Your task to perform on an android device: check out phone information Image 0: 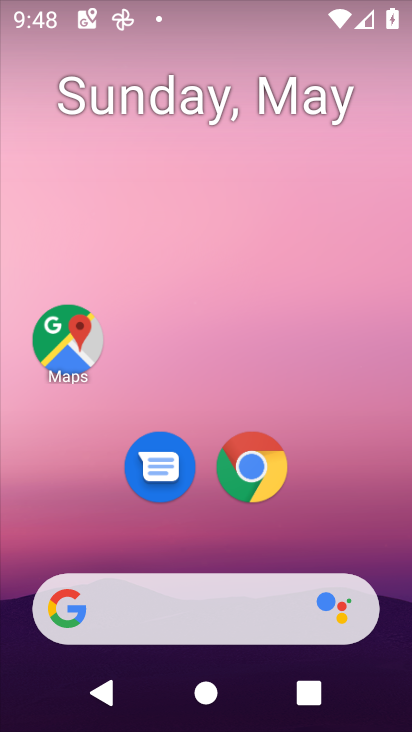
Step 0: press home button
Your task to perform on an android device: check out phone information Image 1: 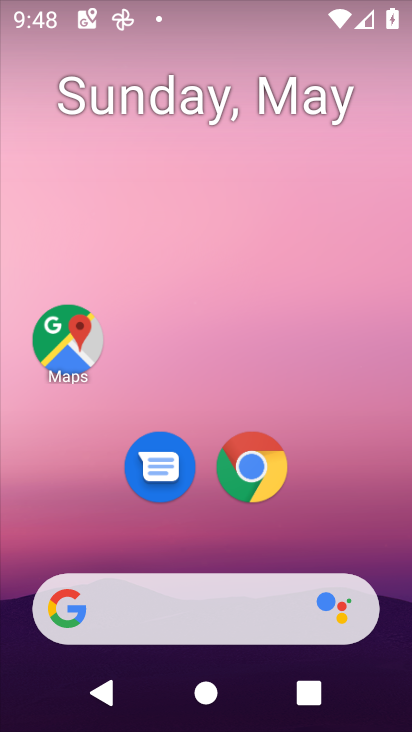
Step 1: drag from (330, 430) to (330, 154)
Your task to perform on an android device: check out phone information Image 2: 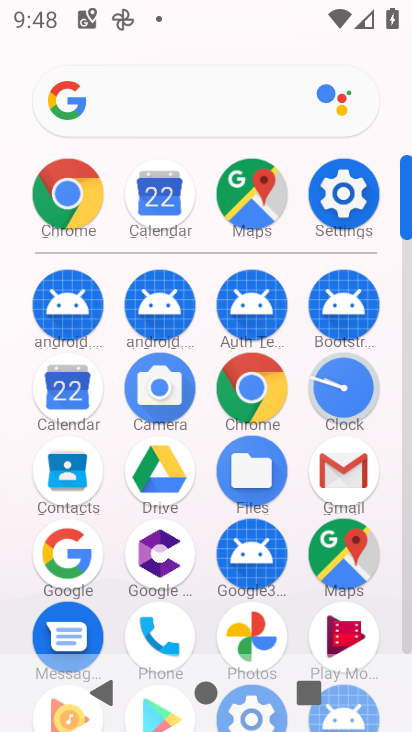
Step 2: click (164, 618)
Your task to perform on an android device: check out phone information Image 3: 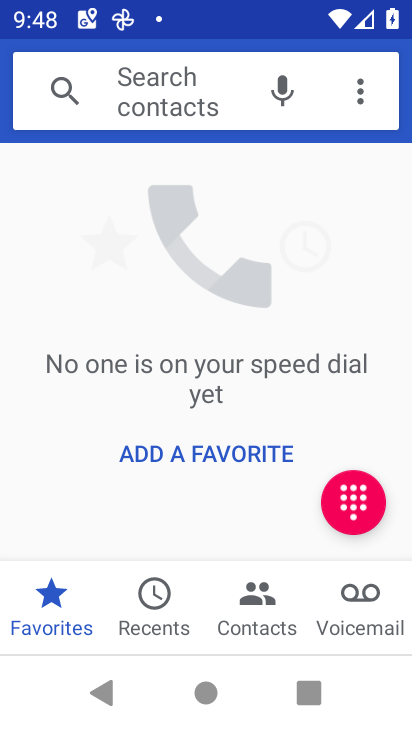
Step 3: click (362, 98)
Your task to perform on an android device: check out phone information Image 4: 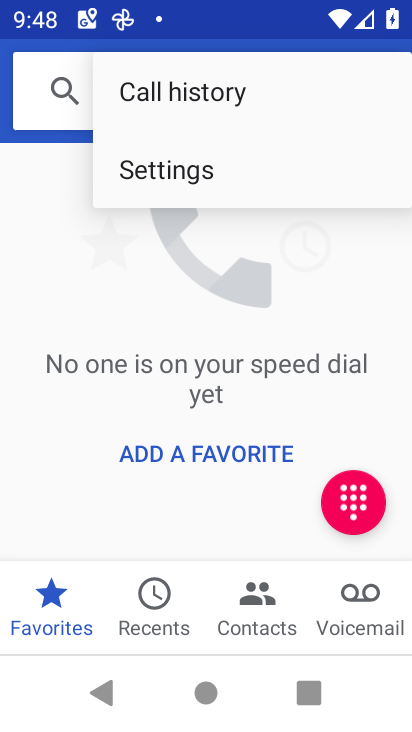
Step 4: click (206, 185)
Your task to perform on an android device: check out phone information Image 5: 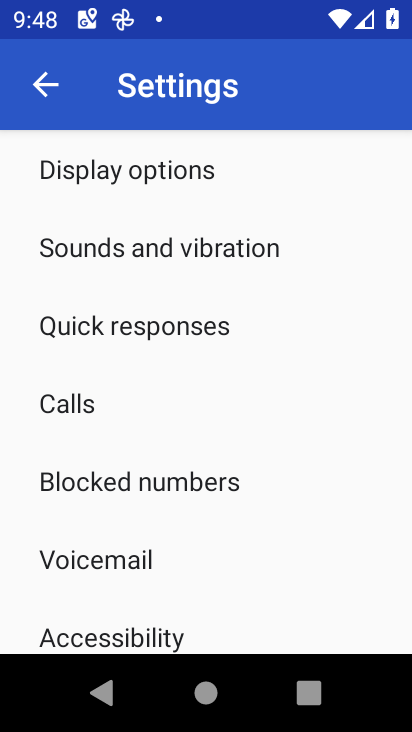
Step 5: task complete